Your task to perform on an android device: Go to Android settings Image 0: 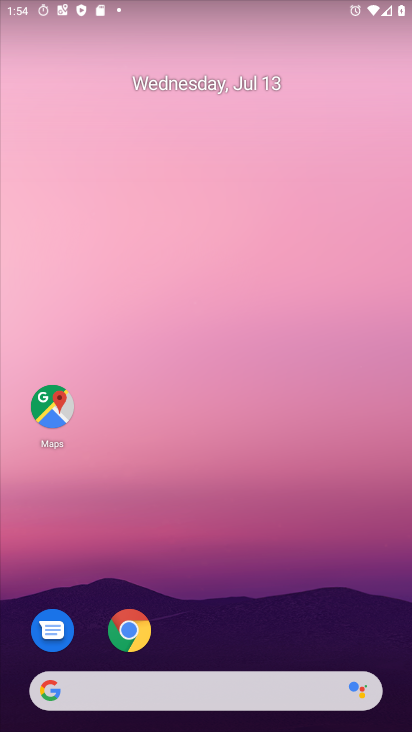
Step 0: drag from (364, 618) to (371, 224)
Your task to perform on an android device: Go to Android settings Image 1: 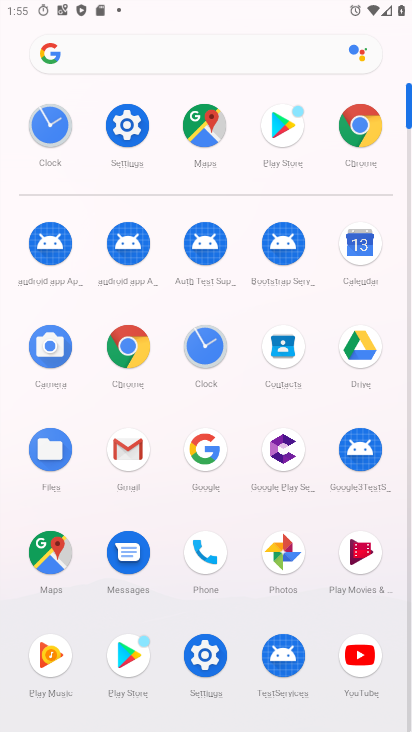
Step 1: click (130, 129)
Your task to perform on an android device: Go to Android settings Image 2: 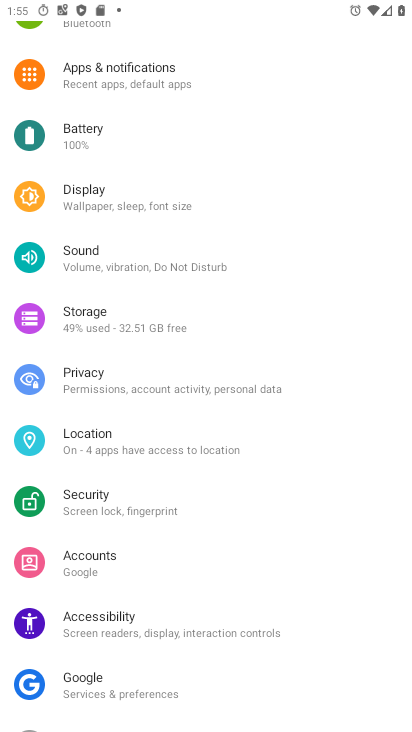
Step 2: drag from (307, 231) to (332, 379)
Your task to perform on an android device: Go to Android settings Image 3: 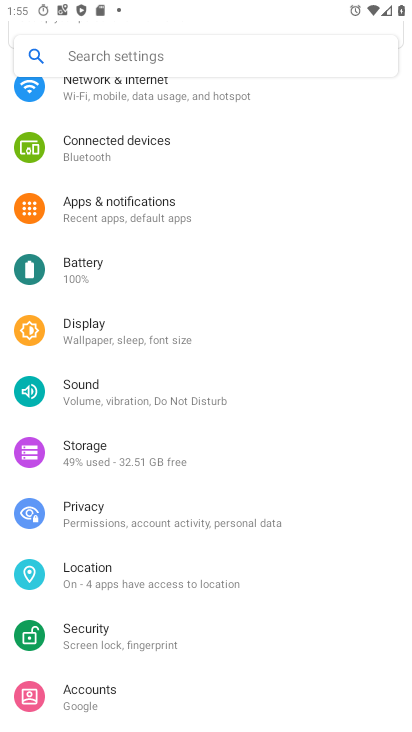
Step 3: drag from (327, 262) to (329, 400)
Your task to perform on an android device: Go to Android settings Image 4: 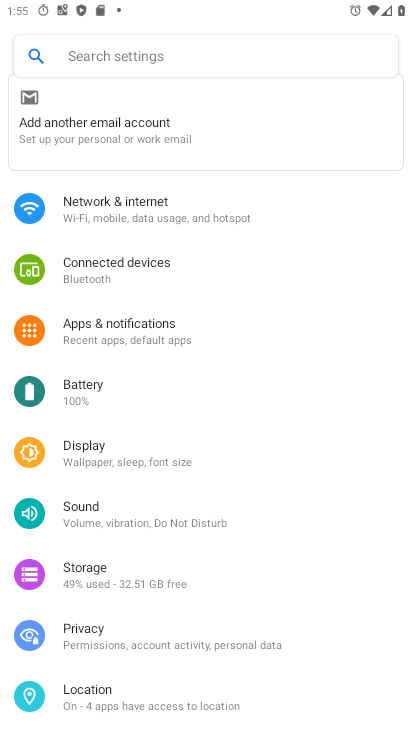
Step 4: drag from (329, 308) to (329, 444)
Your task to perform on an android device: Go to Android settings Image 5: 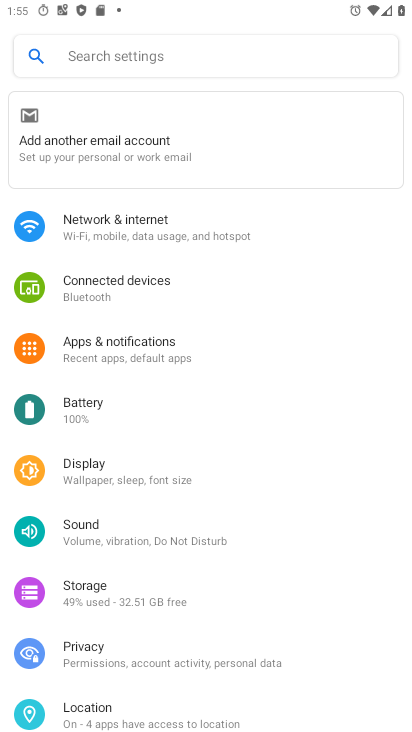
Step 5: drag from (339, 321) to (323, 564)
Your task to perform on an android device: Go to Android settings Image 6: 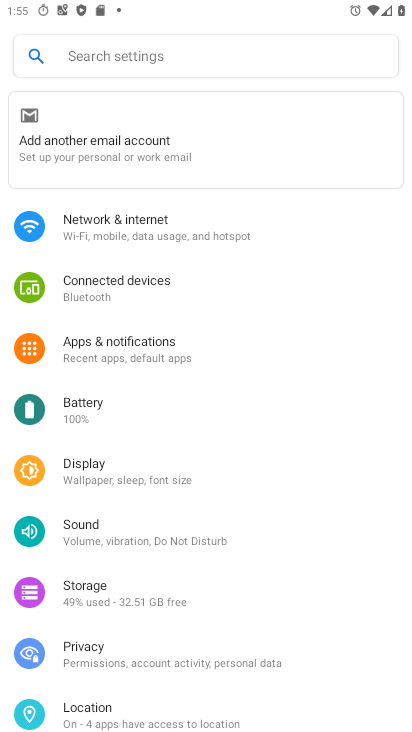
Step 6: drag from (324, 603) to (339, 311)
Your task to perform on an android device: Go to Android settings Image 7: 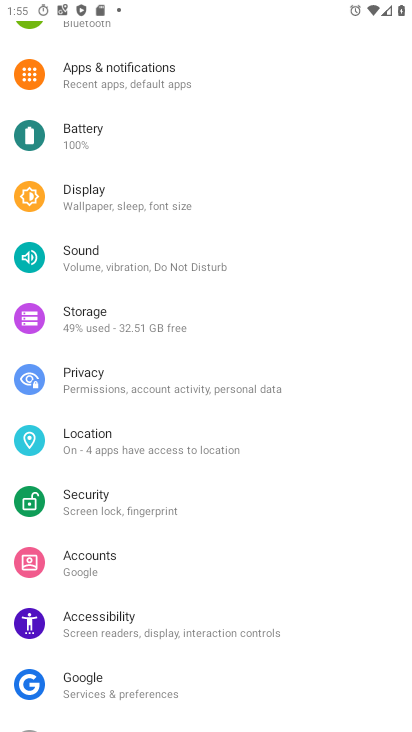
Step 7: drag from (334, 480) to (339, 302)
Your task to perform on an android device: Go to Android settings Image 8: 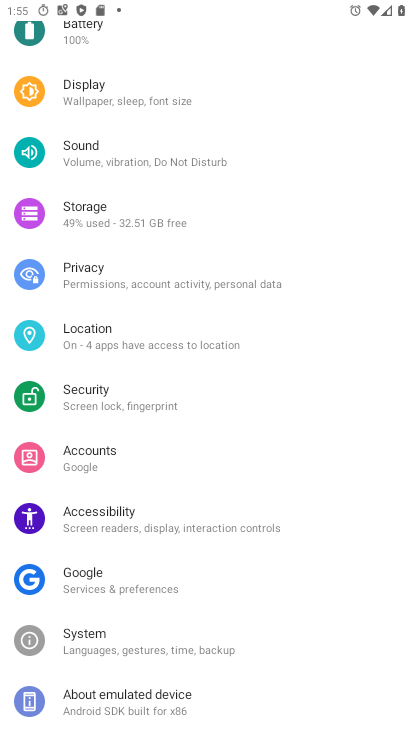
Step 8: drag from (316, 511) to (304, 309)
Your task to perform on an android device: Go to Android settings Image 9: 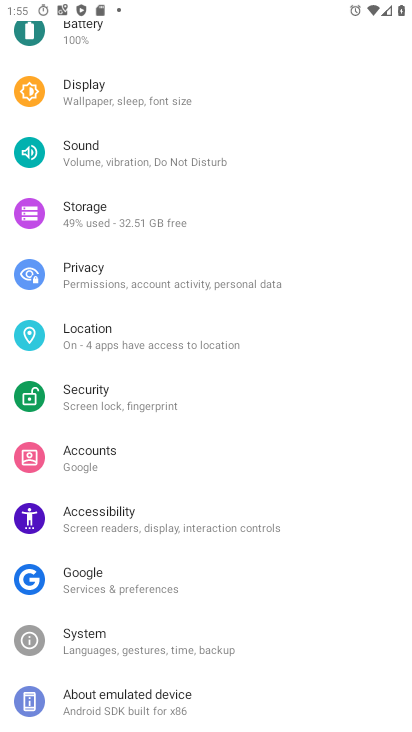
Step 9: drag from (326, 411) to (350, 232)
Your task to perform on an android device: Go to Android settings Image 10: 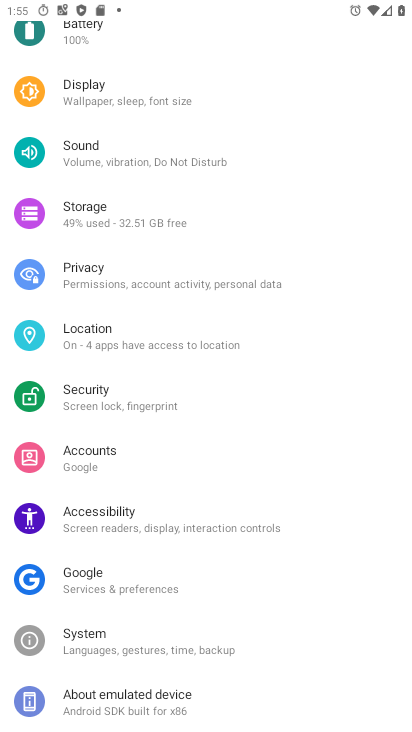
Step 10: drag from (348, 187) to (342, 311)
Your task to perform on an android device: Go to Android settings Image 11: 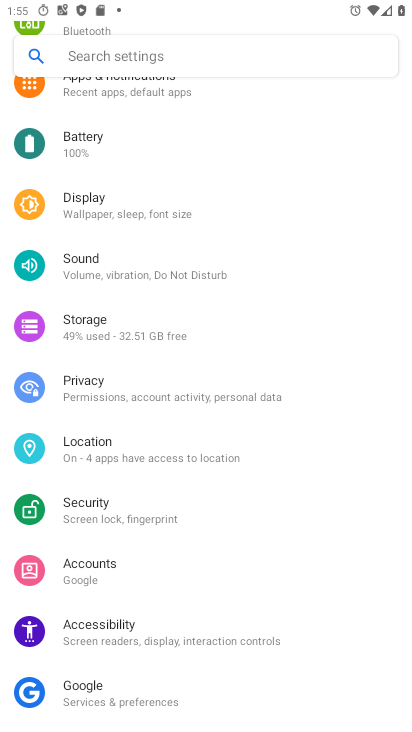
Step 11: drag from (365, 466) to (375, 329)
Your task to perform on an android device: Go to Android settings Image 12: 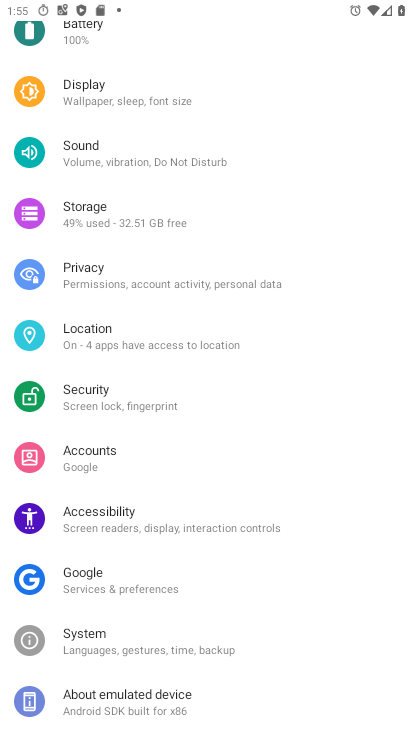
Step 12: click (219, 648)
Your task to perform on an android device: Go to Android settings Image 13: 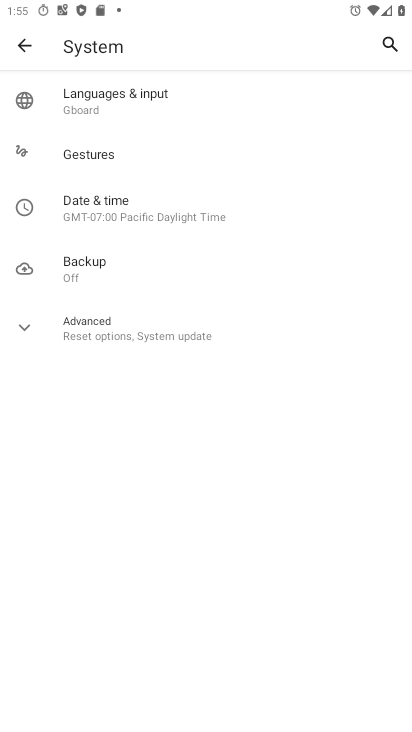
Step 13: click (192, 326)
Your task to perform on an android device: Go to Android settings Image 14: 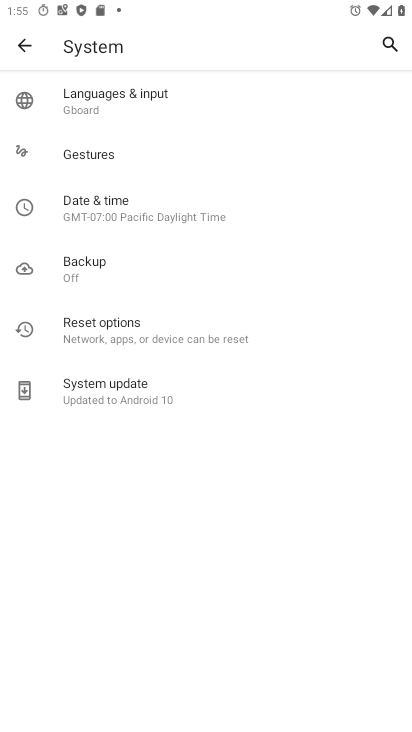
Step 14: task complete